Your task to perform on an android device: View the shopping cart on walmart. Search for "macbook pro" on walmart, select the first entry, add it to the cart, then select checkout. Image 0: 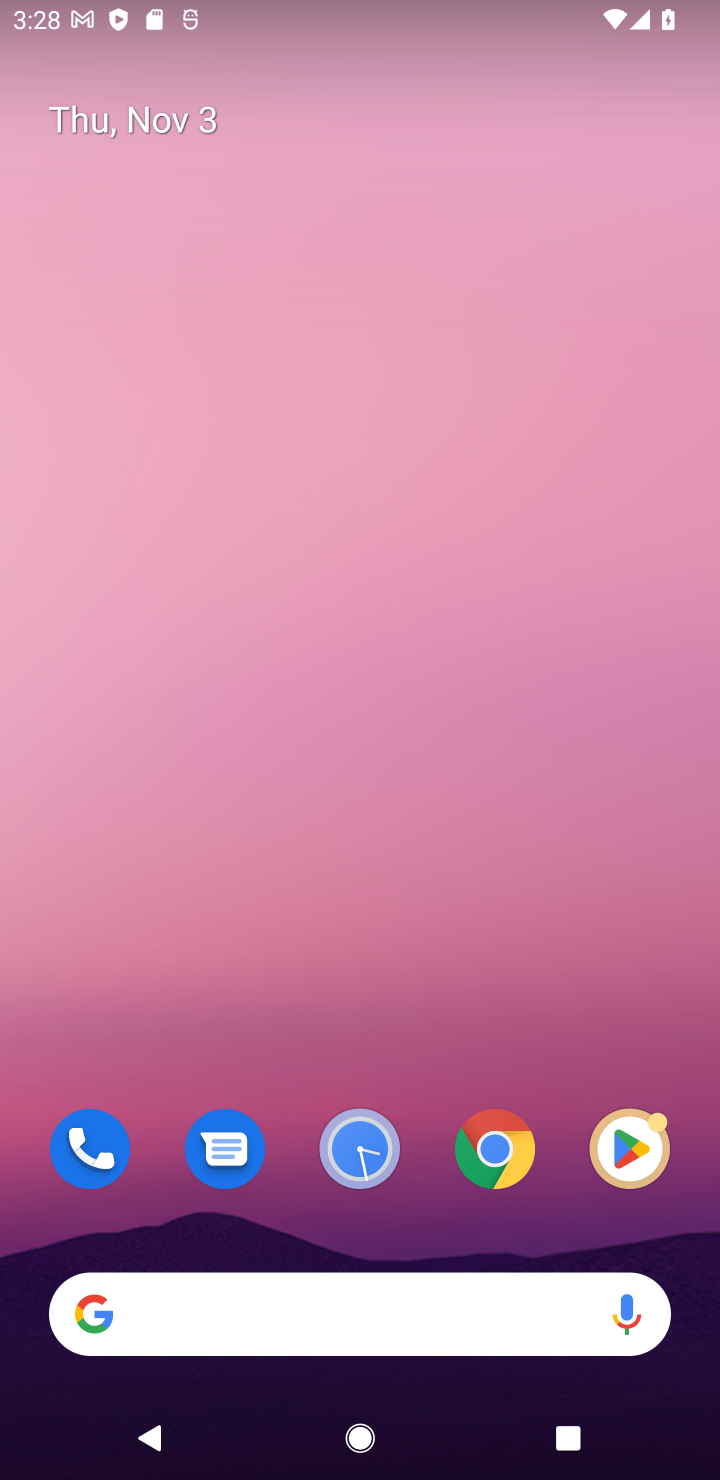
Step 0: drag from (433, 1049) to (514, 63)
Your task to perform on an android device: View the shopping cart on walmart. Search for "macbook pro" on walmart, select the first entry, add it to the cart, then select checkout. Image 1: 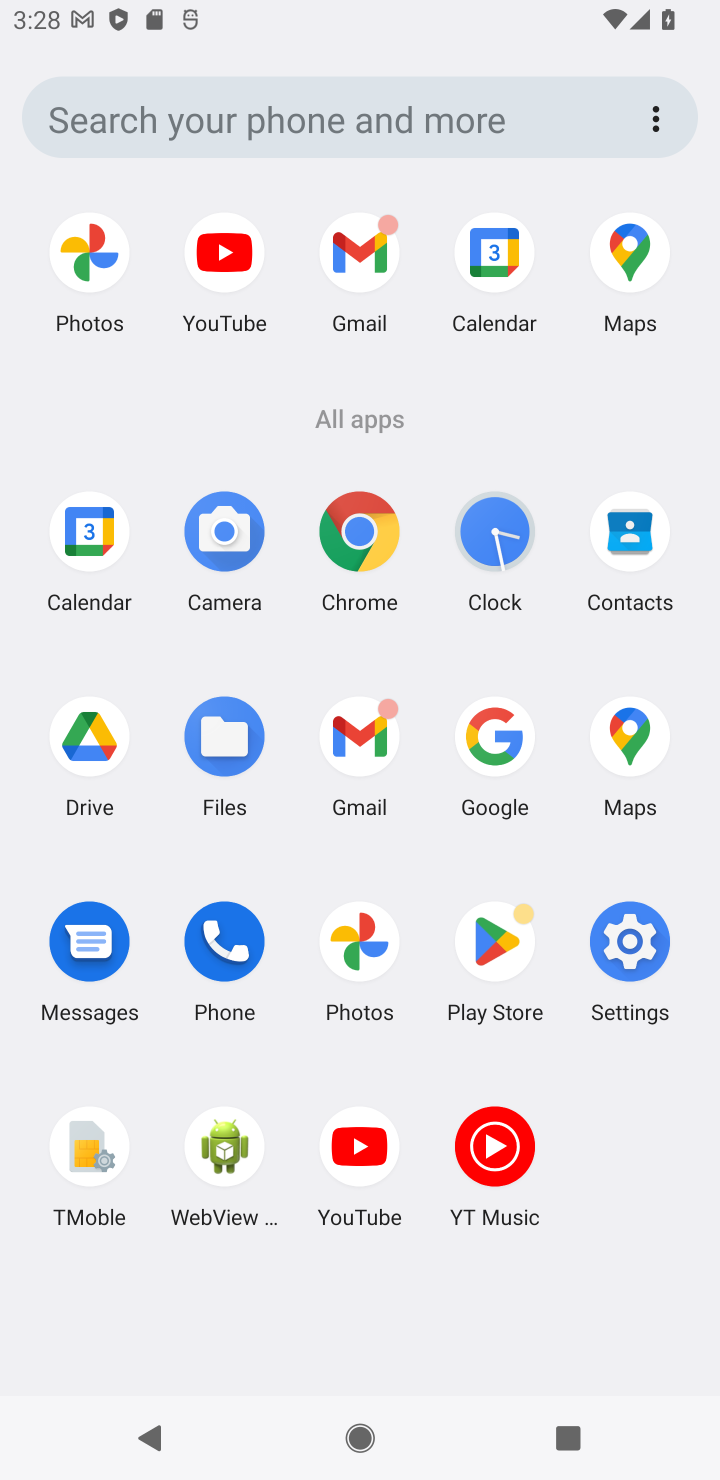
Step 1: click (345, 510)
Your task to perform on an android device: View the shopping cart on walmart. Search for "macbook pro" on walmart, select the first entry, add it to the cart, then select checkout. Image 2: 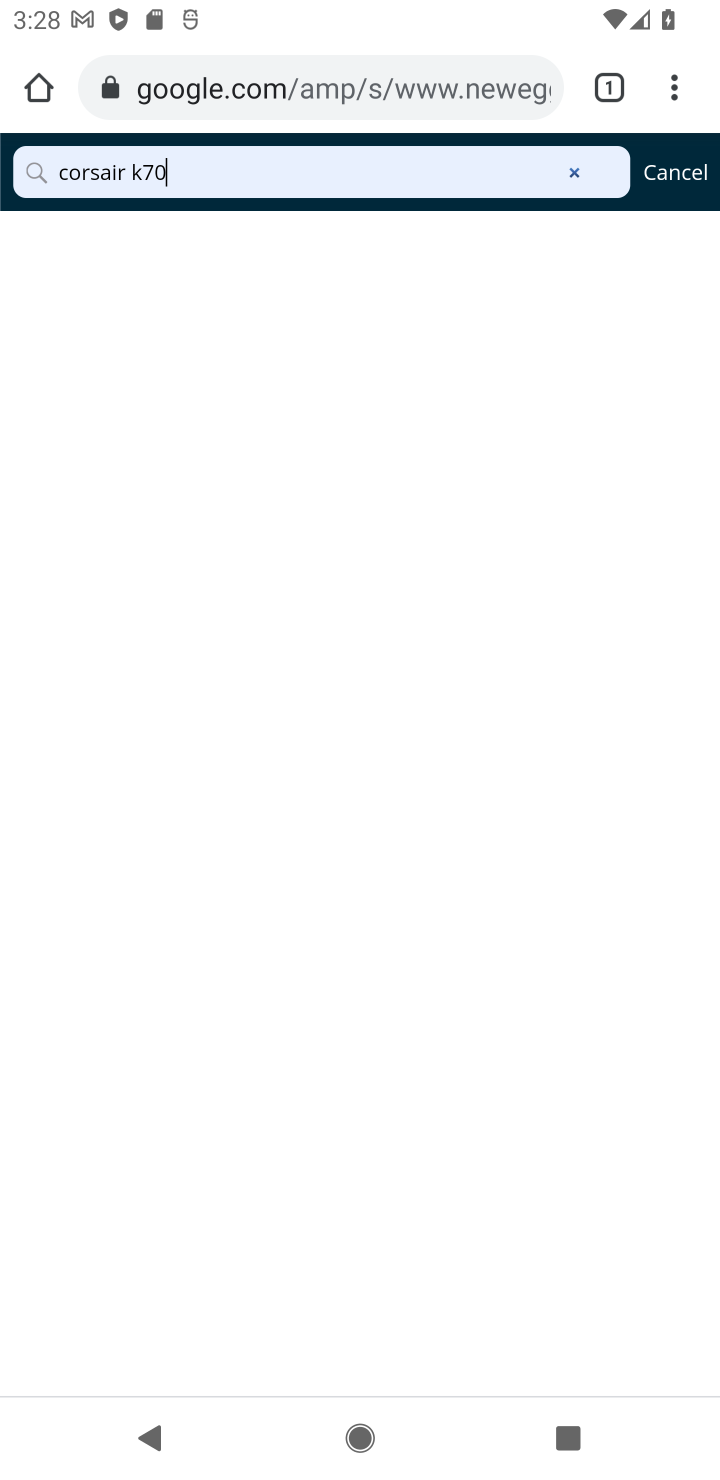
Step 2: click (248, 75)
Your task to perform on an android device: View the shopping cart on walmart. Search for "macbook pro" on walmart, select the first entry, add it to the cart, then select checkout. Image 3: 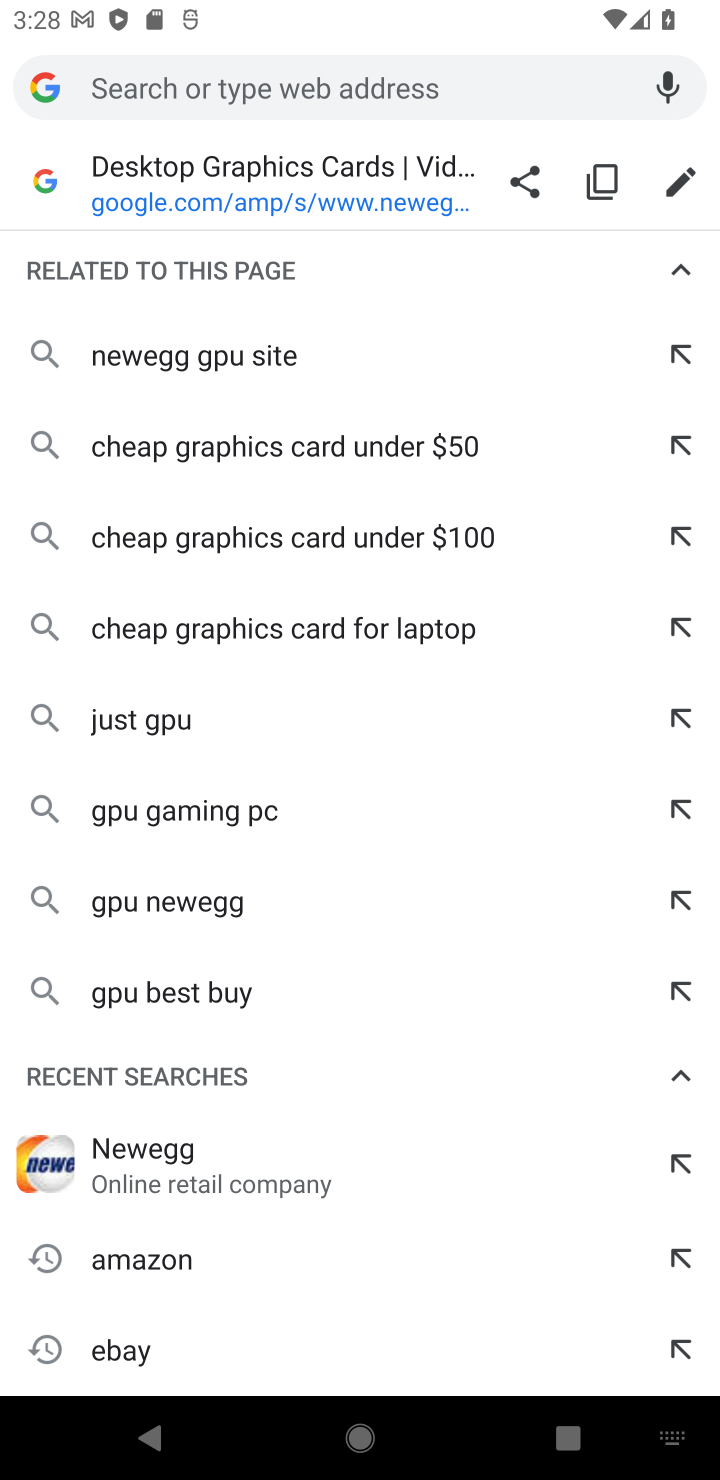
Step 3: type "walmart"
Your task to perform on an android device: View the shopping cart on walmart. Search for "macbook pro" on walmart, select the first entry, add it to the cart, then select checkout. Image 4: 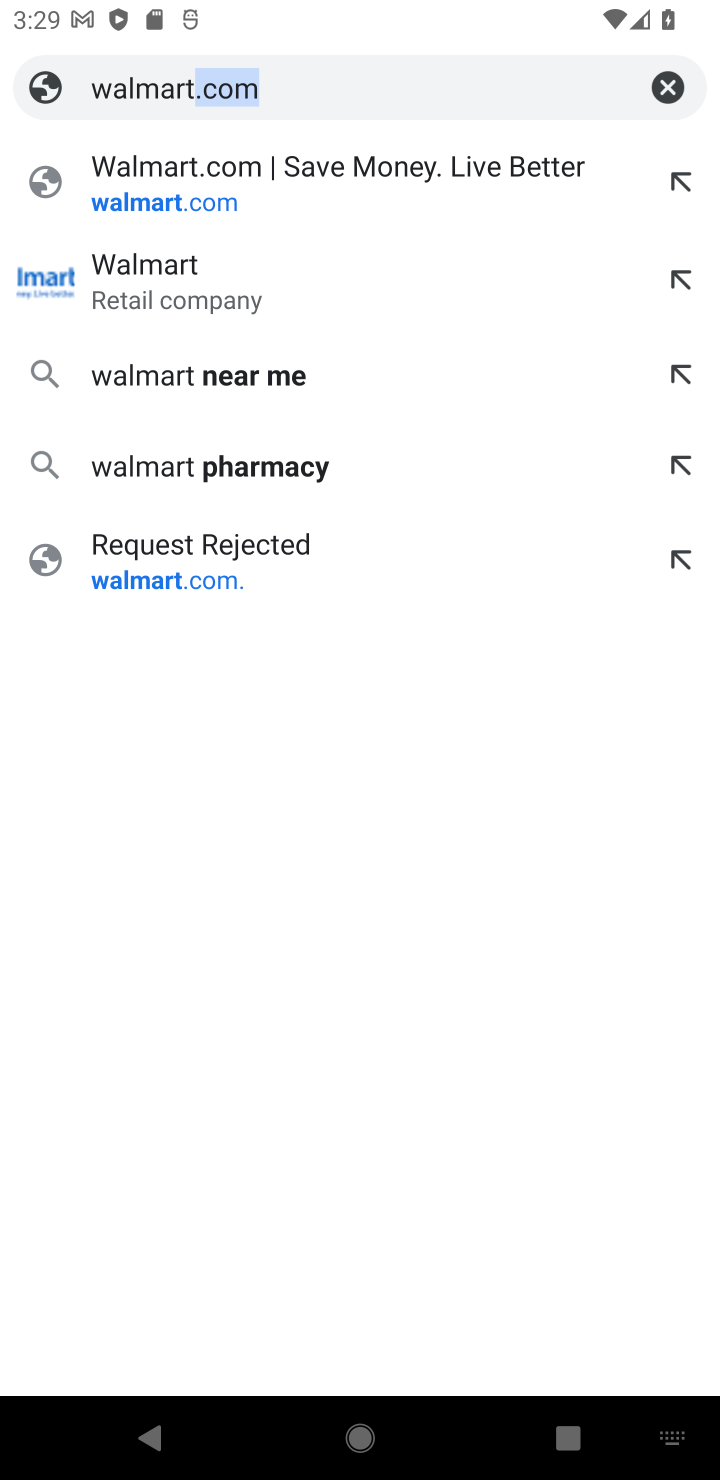
Step 4: click (217, 202)
Your task to perform on an android device: View the shopping cart on walmart. Search for "macbook pro" on walmart, select the first entry, add it to the cart, then select checkout. Image 5: 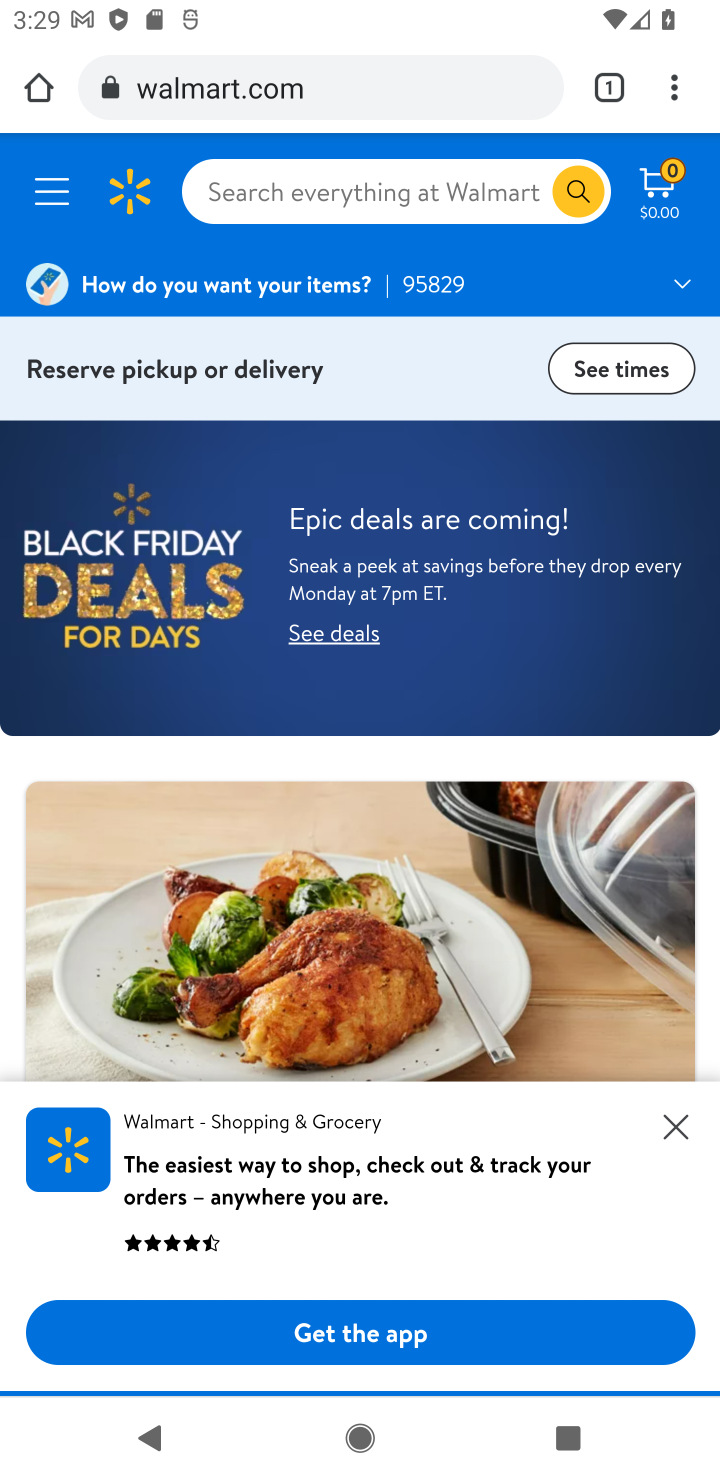
Step 5: click (679, 1122)
Your task to perform on an android device: View the shopping cart on walmart. Search for "macbook pro" on walmart, select the first entry, add it to the cart, then select checkout. Image 6: 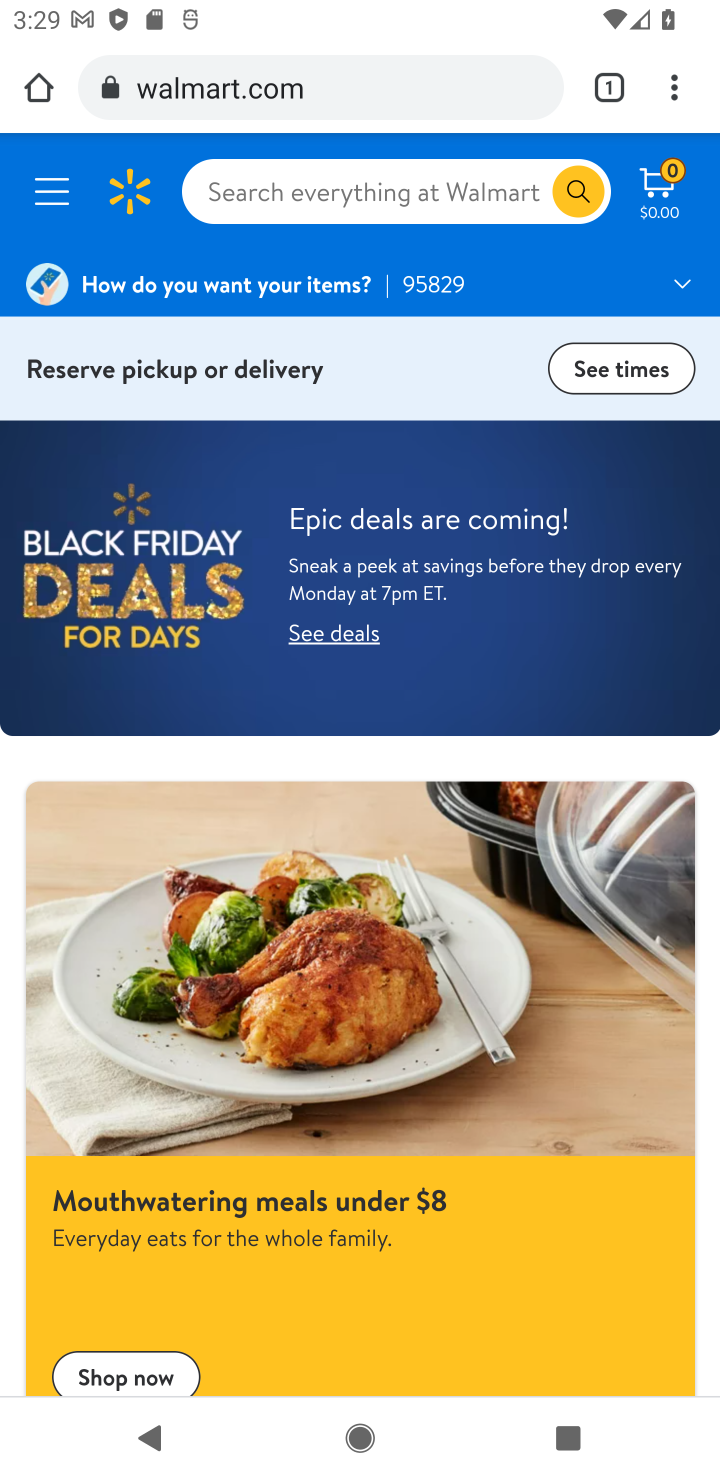
Step 6: click (267, 171)
Your task to perform on an android device: View the shopping cart on walmart. Search for "macbook pro" on walmart, select the first entry, add it to the cart, then select checkout. Image 7: 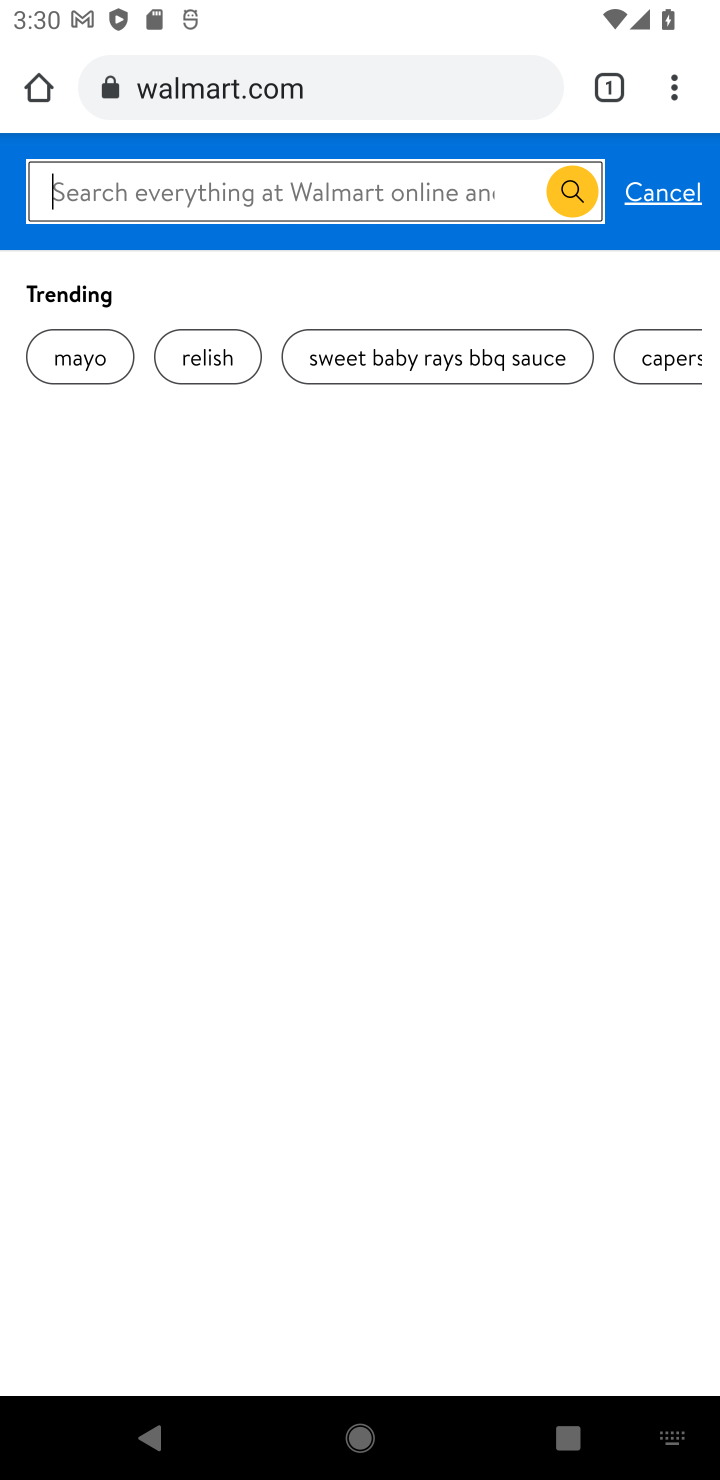
Step 7: type "macbook pro"
Your task to perform on an android device: View the shopping cart on walmart. Search for "macbook pro" on walmart, select the first entry, add it to the cart, then select checkout. Image 8: 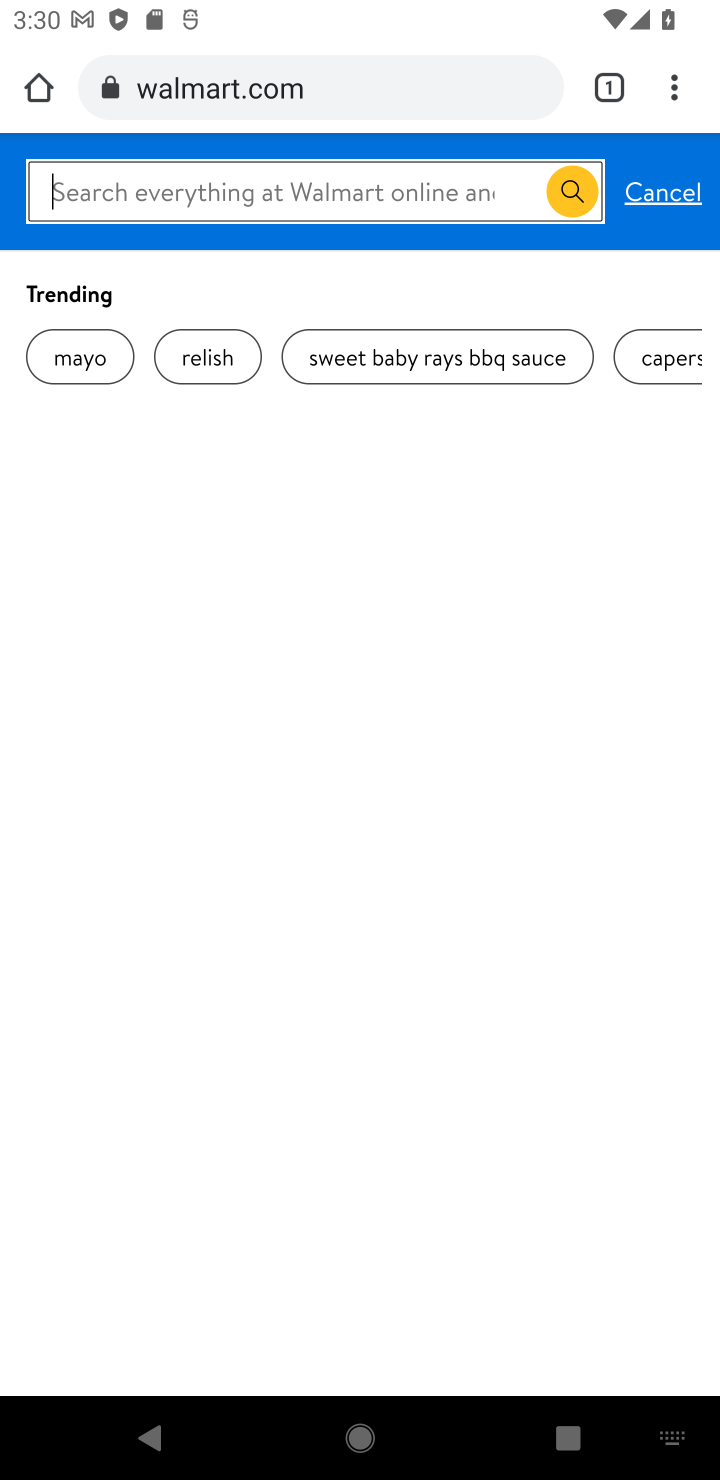
Step 8: type ""
Your task to perform on an android device: View the shopping cart on walmart. Search for "macbook pro" on walmart, select the first entry, add it to the cart, then select checkout. Image 9: 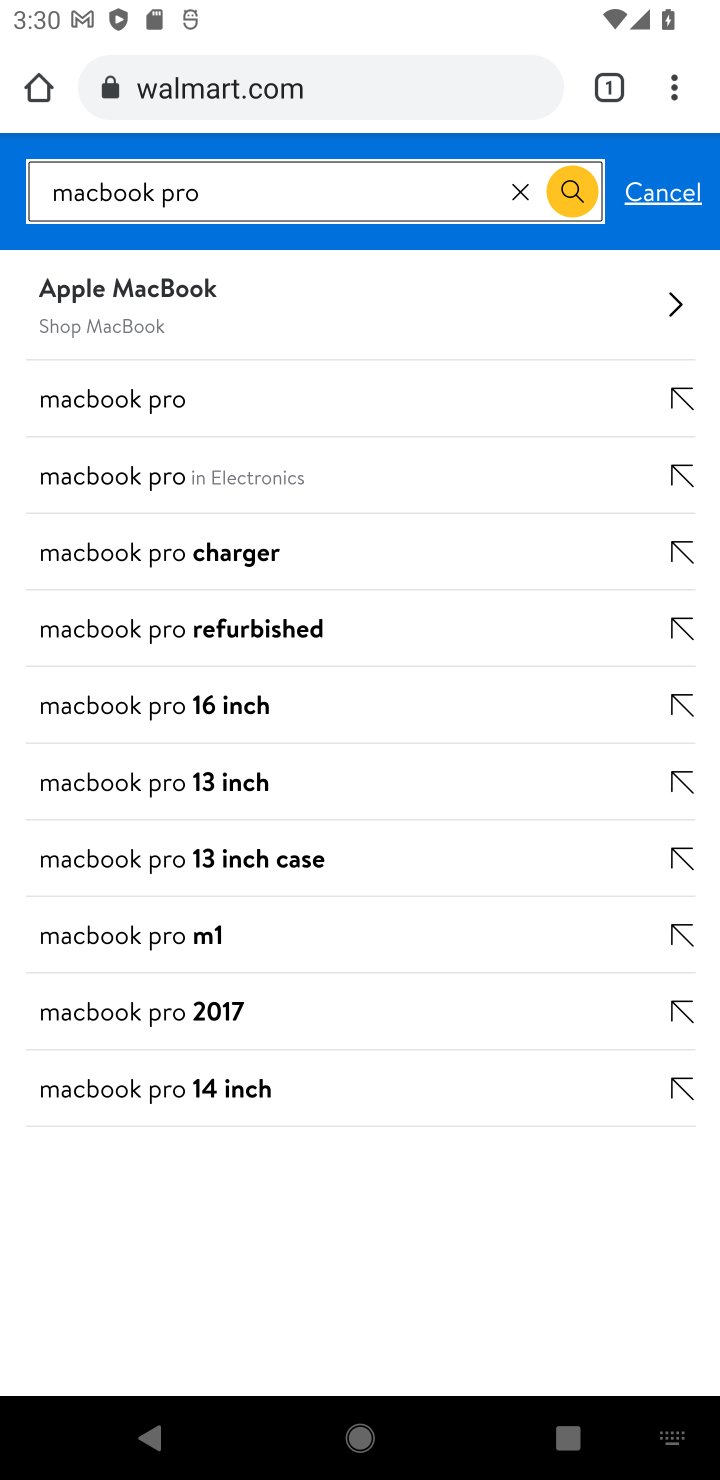
Step 9: click (229, 475)
Your task to perform on an android device: View the shopping cart on walmart. Search for "macbook pro" on walmart, select the first entry, add it to the cart, then select checkout. Image 10: 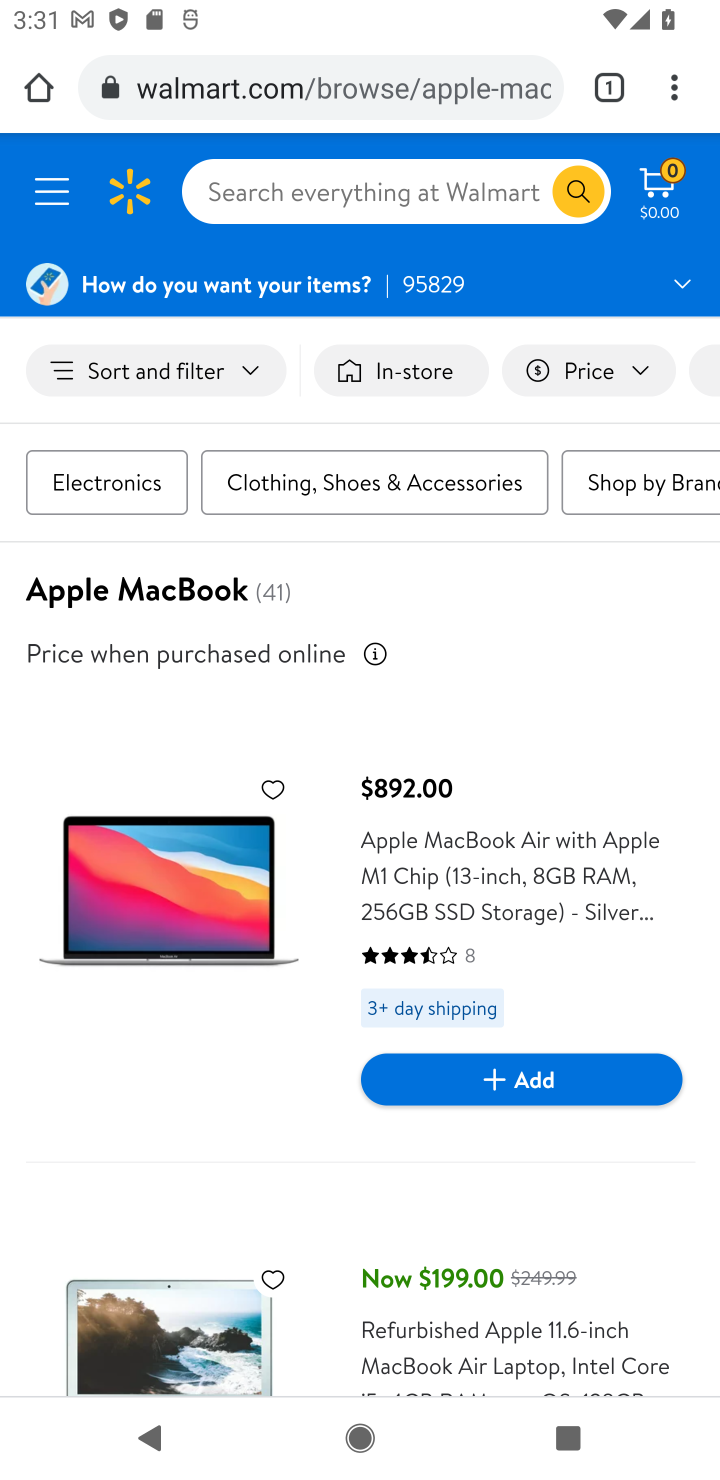
Step 10: click (411, 888)
Your task to perform on an android device: View the shopping cart on walmart. Search for "macbook pro" on walmart, select the first entry, add it to the cart, then select checkout. Image 11: 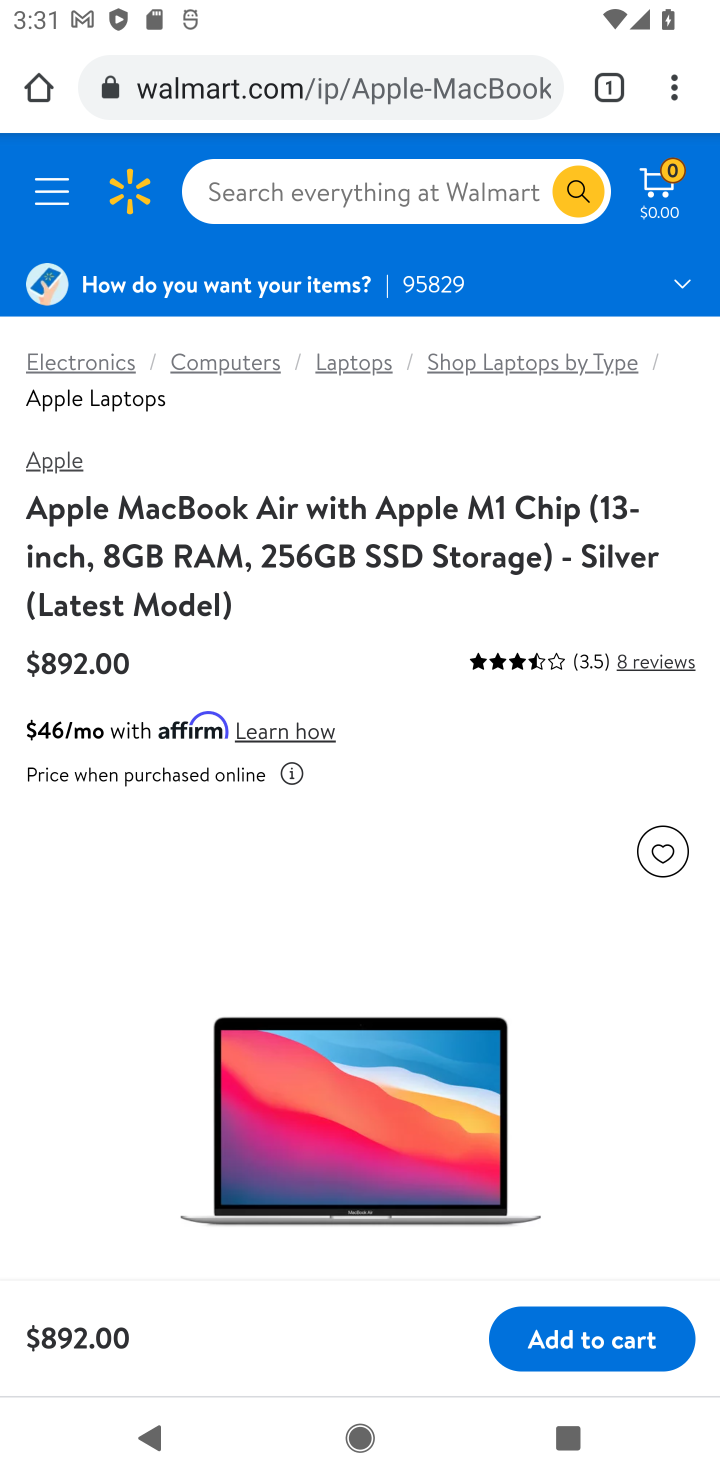
Step 11: drag from (382, 1035) to (467, 658)
Your task to perform on an android device: View the shopping cart on walmart. Search for "macbook pro" on walmart, select the first entry, add it to the cart, then select checkout. Image 12: 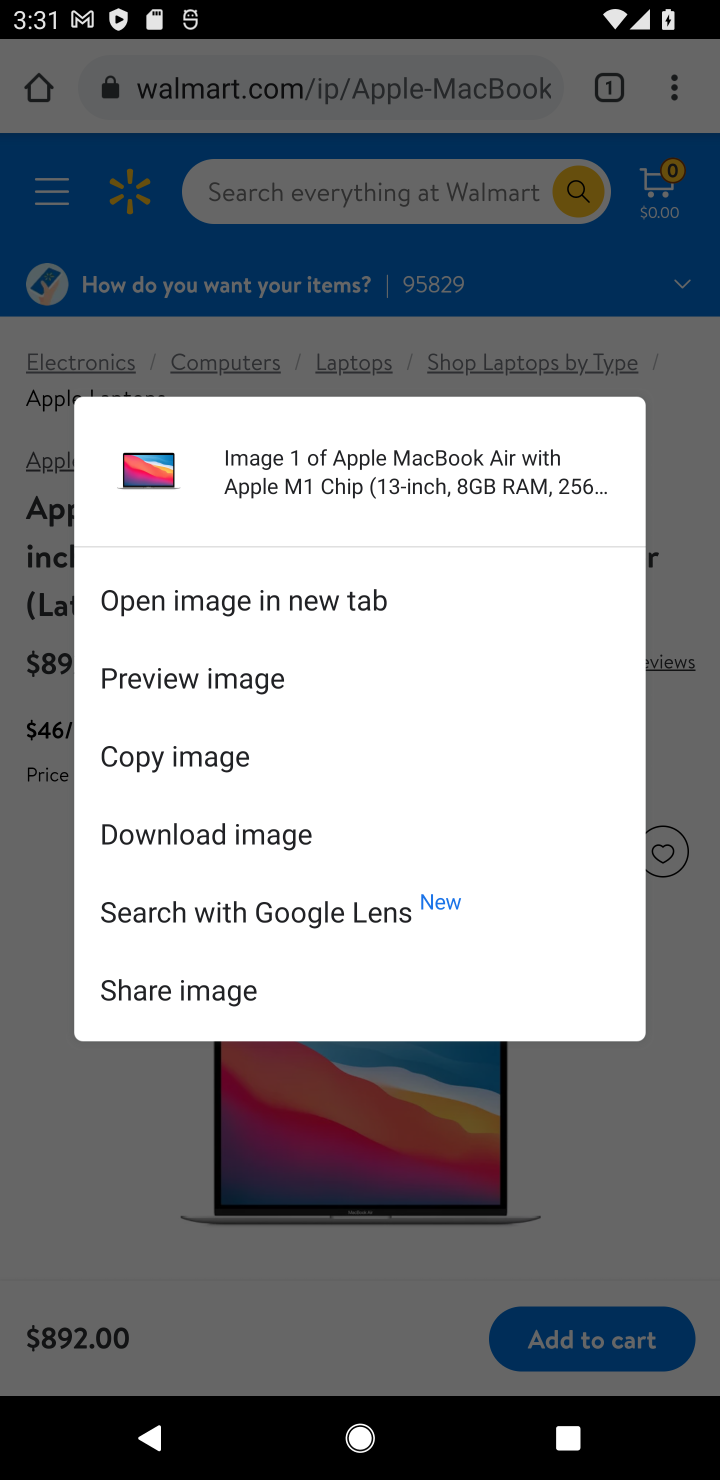
Step 12: click (605, 1274)
Your task to perform on an android device: View the shopping cart on walmart. Search for "macbook pro" on walmart, select the first entry, add it to the cart, then select checkout. Image 13: 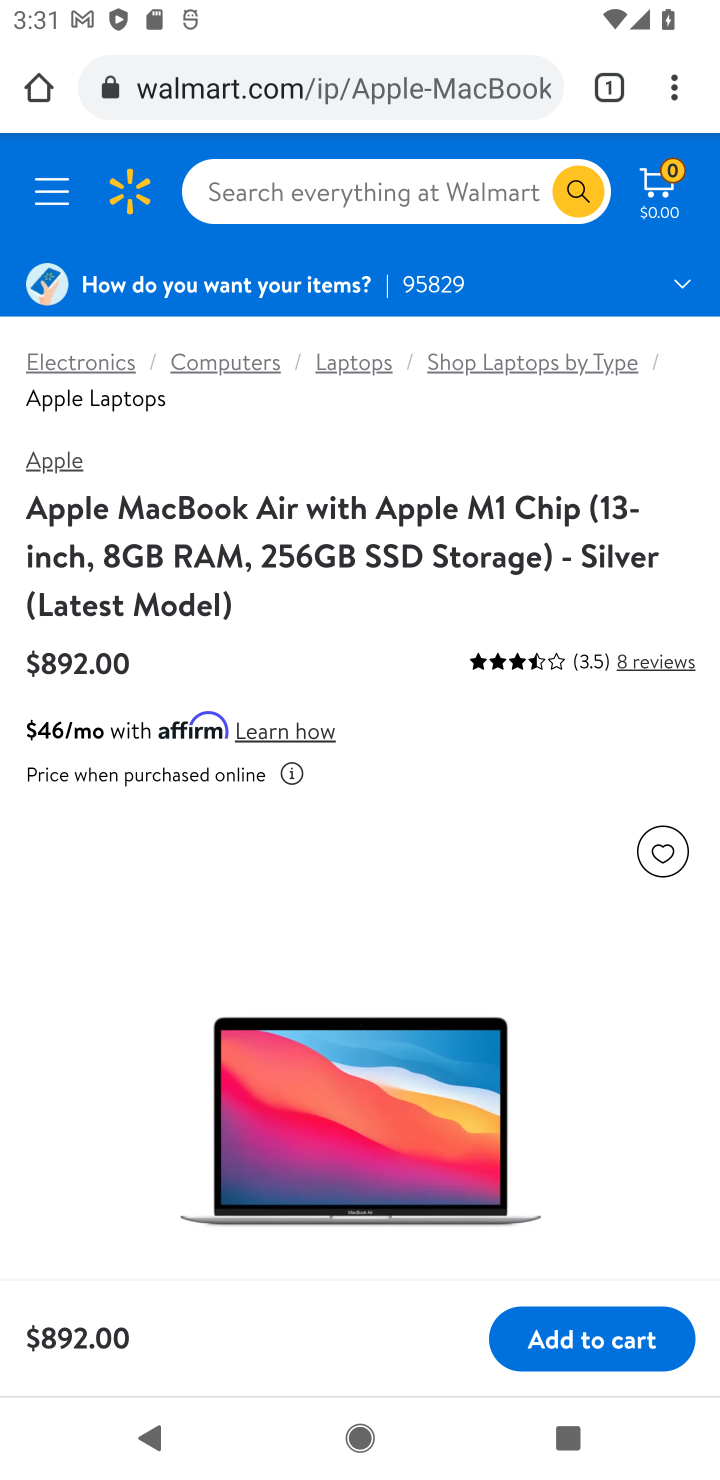
Step 13: click (611, 1340)
Your task to perform on an android device: View the shopping cart on walmart. Search for "macbook pro" on walmart, select the first entry, add it to the cart, then select checkout. Image 14: 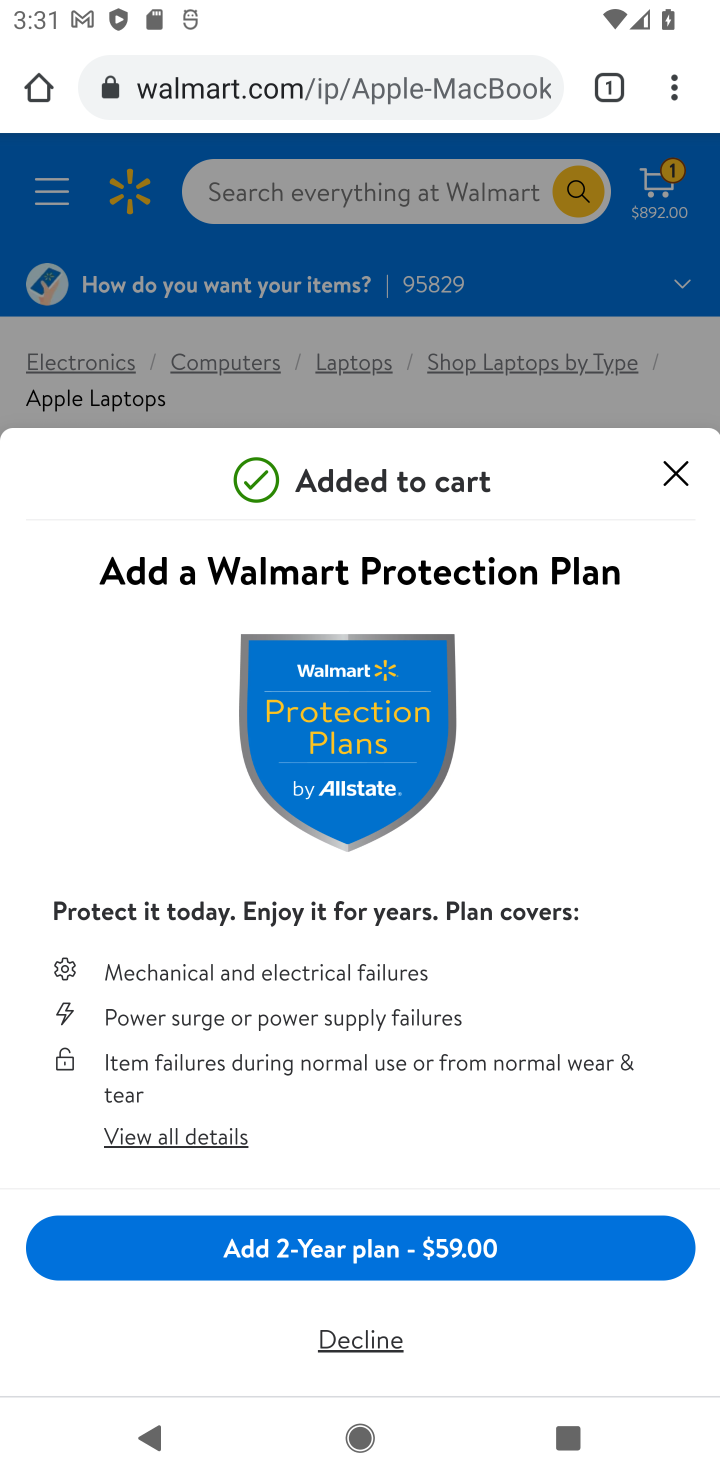
Step 14: click (680, 452)
Your task to perform on an android device: View the shopping cart on walmart. Search for "macbook pro" on walmart, select the first entry, add it to the cart, then select checkout. Image 15: 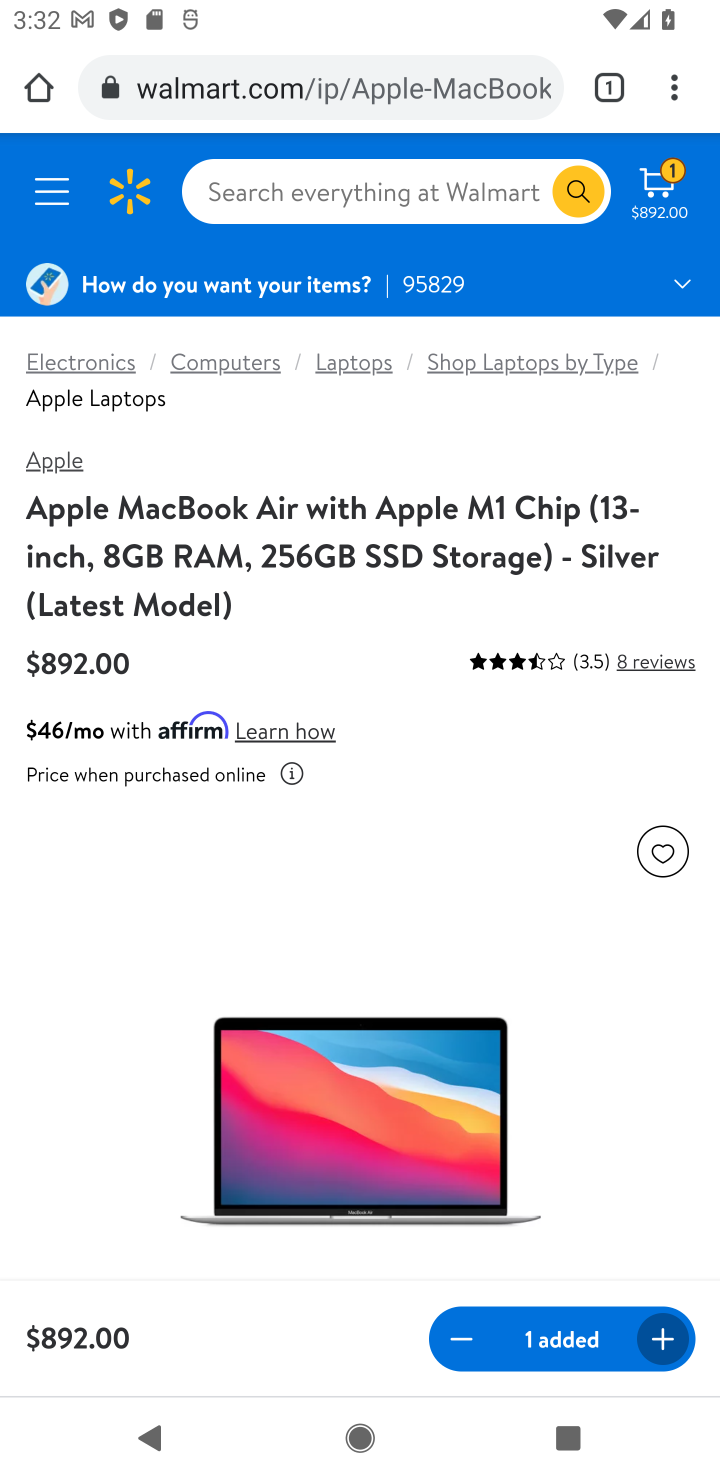
Step 15: click (678, 176)
Your task to perform on an android device: View the shopping cart on walmart. Search for "macbook pro" on walmart, select the first entry, add it to the cart, then select checkout. Image 16: 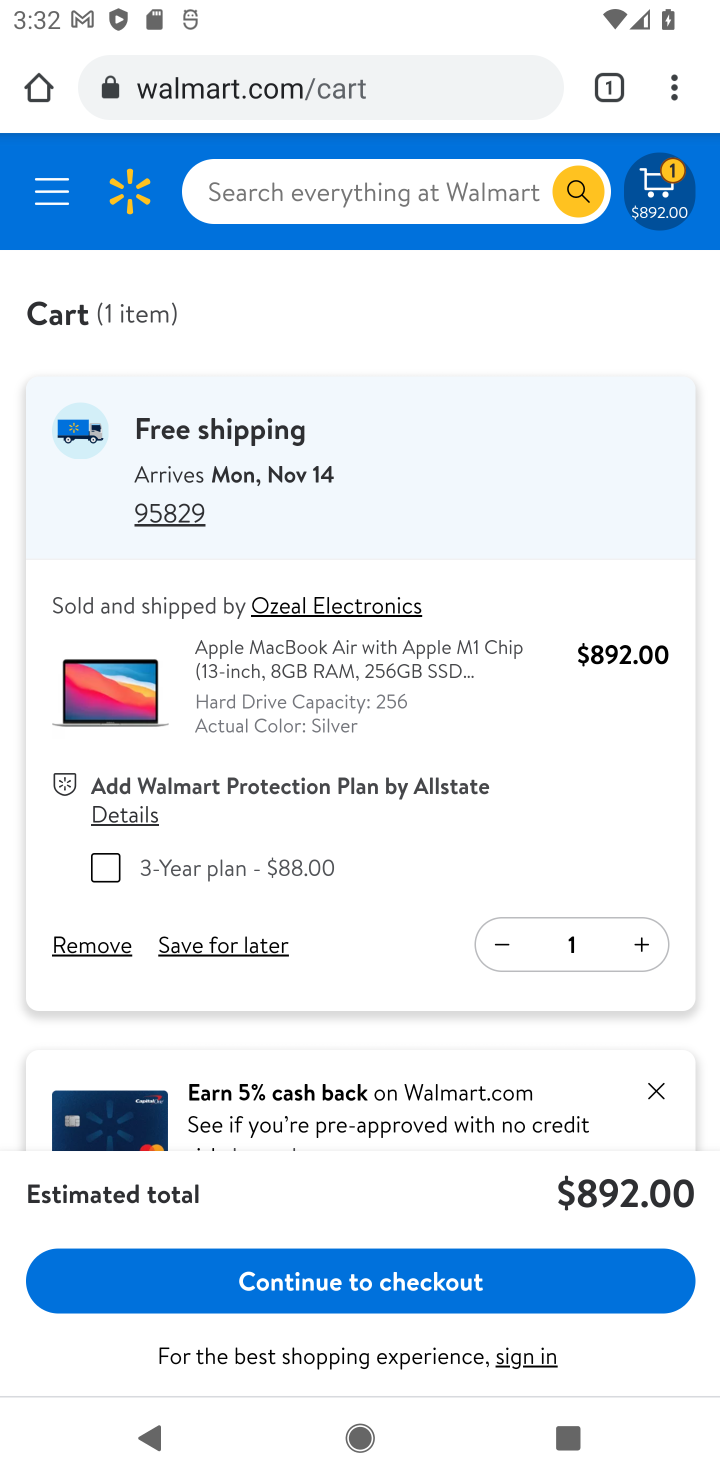
Step 16: click (352, 1287)
Your task to perform on an android device: View the shopping cart on walmart. Search for "macbook pro" on walmart, select the first entry, add it to the cart, then select checkout. Image 17: 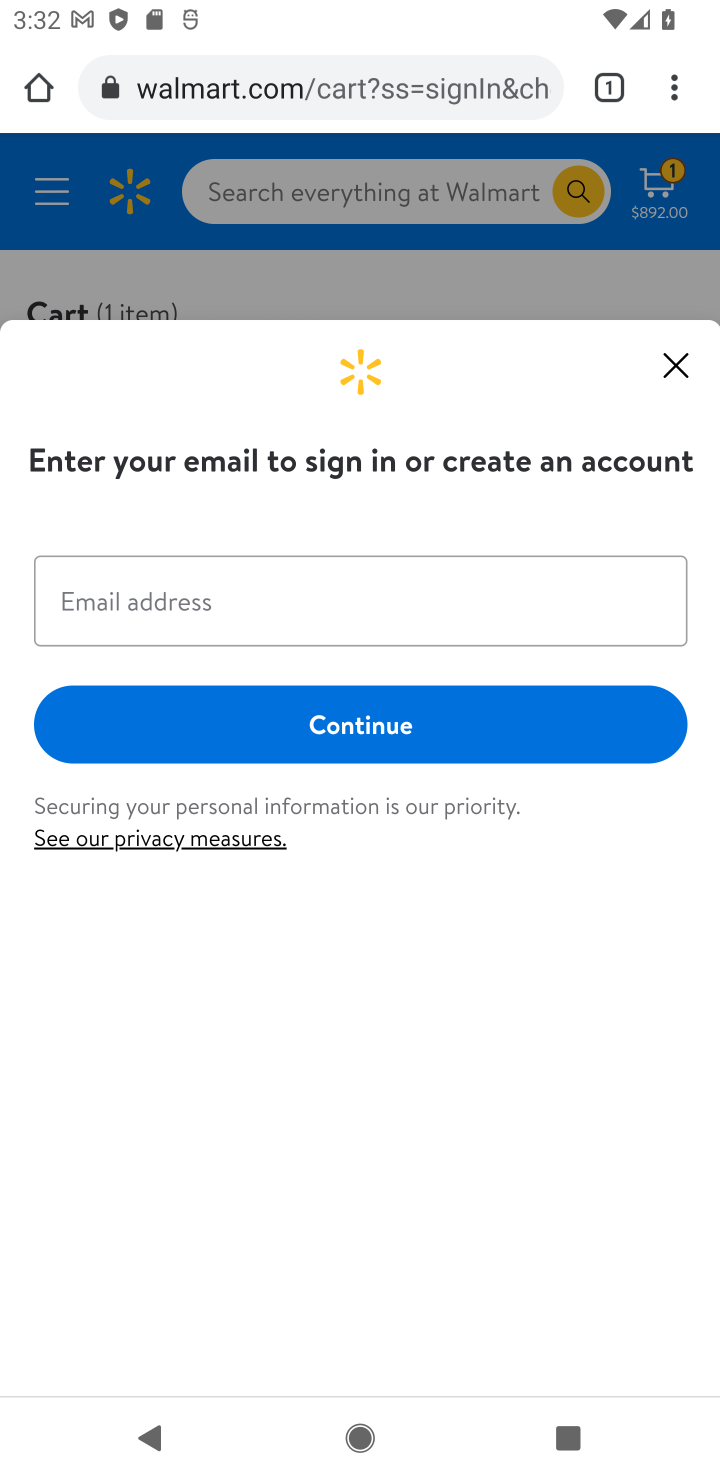
Step 17: task complete